Your task to perform on an android device: toggle translation in the chrome app Image 0: 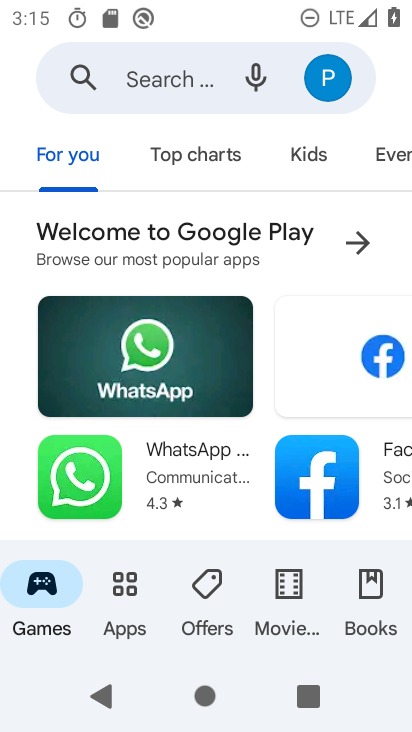
Step 0: press back button
Your task to perform on an android device: toggle translation in the chrome app Image 1: 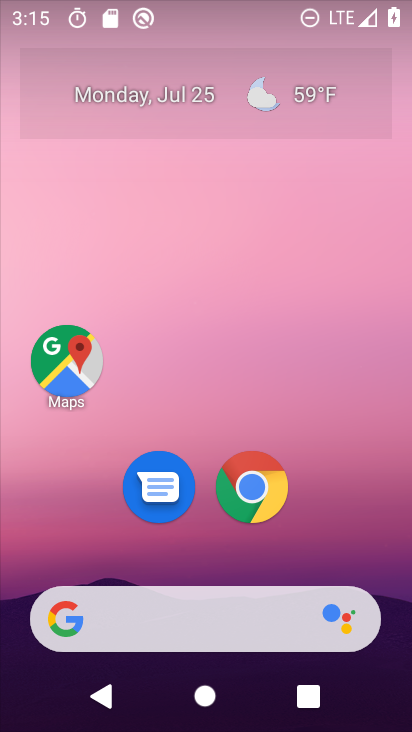
Step 1: click (241, 490)
Your task to perform on an android device: toggle translation in the chrome app Image 2: 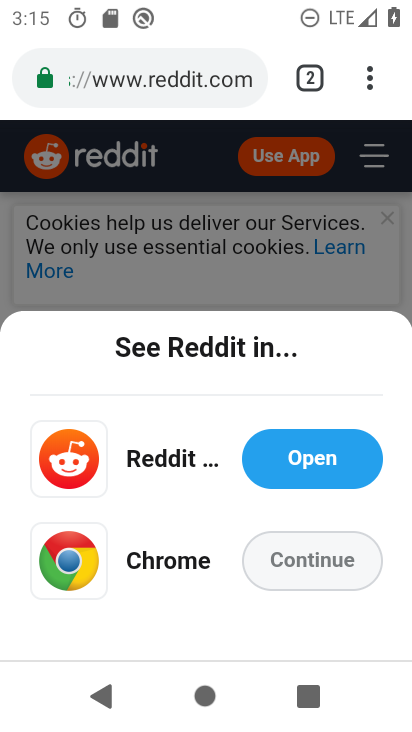
Step 2: drag from (374, 78) to (104, 561)
Your task to perform on an android device: toggle translation in the chrome app Image 3: 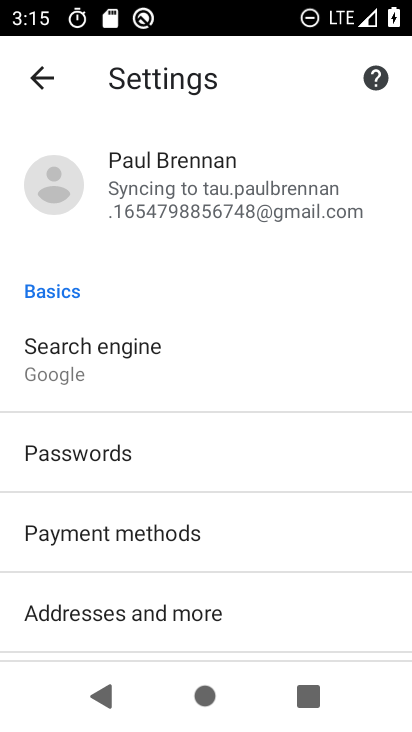
Step 3: drag from (168, 592) to (266, 1)
Your task to perform on an android device: toggle translation in the chrome app Image 4: 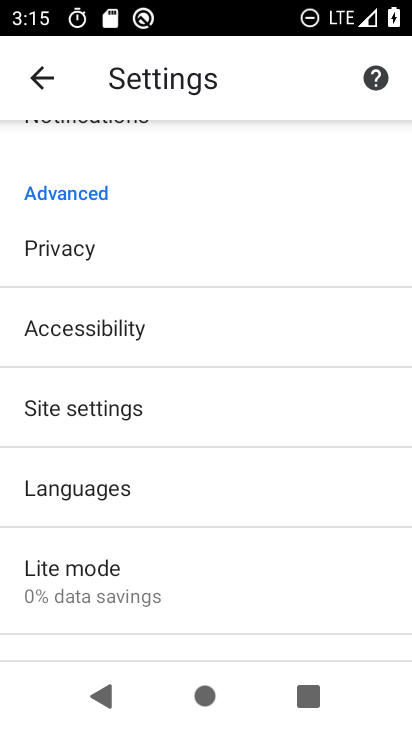
Step 4: drag from (172, 599) to (186, 508)
Your task to perform on an android device: toggle translation in the chrome app Image 5: 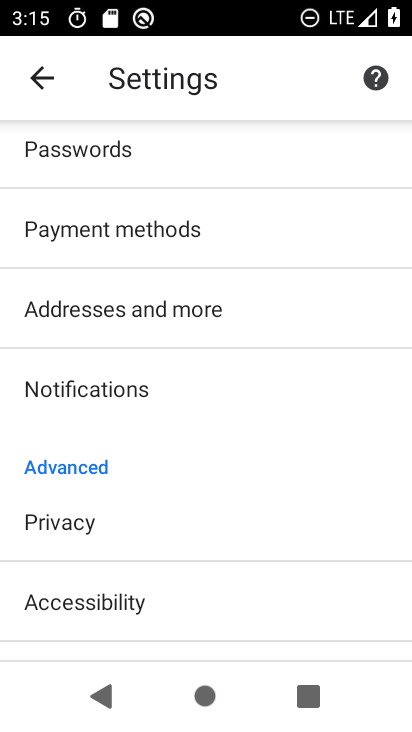
Step 5: drag from (152, 562) to (216, 106)
Your task to perform on an android device: toggle translation in the chrome app Image 6: 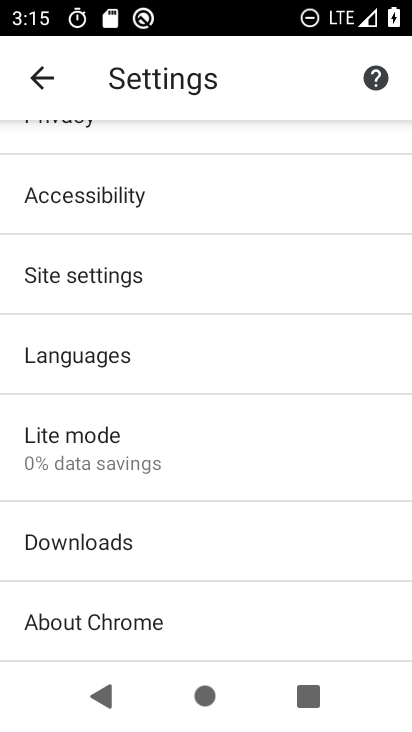
Step 6: drag from (100, 643) to (181, 330)
Your task to perform on an android device: toggle translation in the chrome app Image 7: 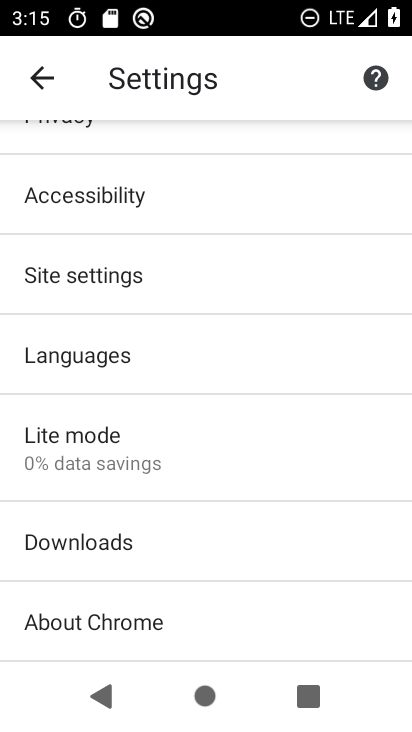
Step 7: click (85, 346)
Your task to perform on an android device: toggle translation in the chrome app Image 8: 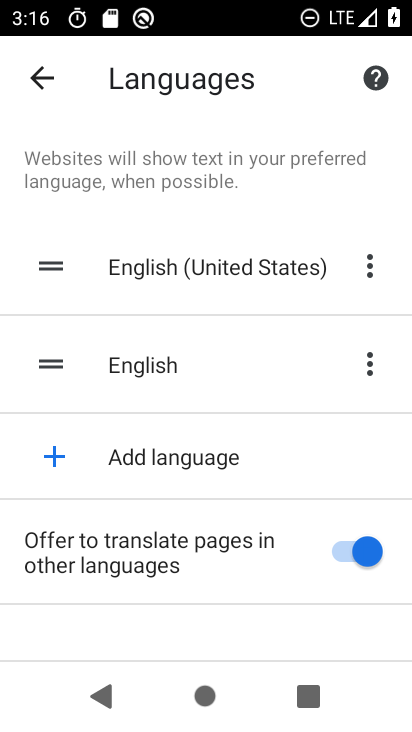
Step 8: task complete